Your task to perform on an android device: turn on translation in the chrome app Image 0: 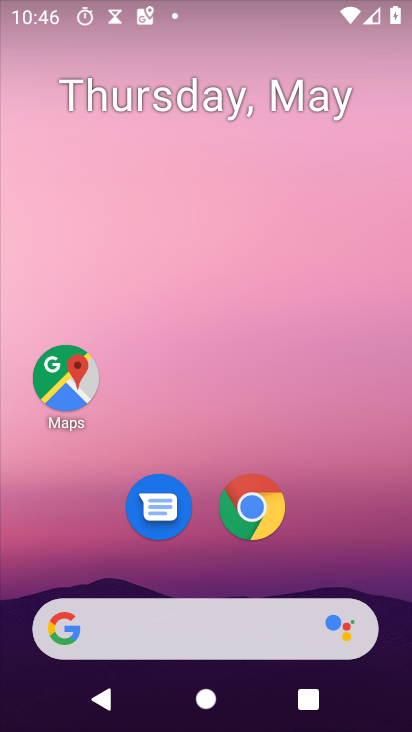
Step 0: click (254, 504)
Your task to perform on an android device: turn on translation in the chrome app Image 1: 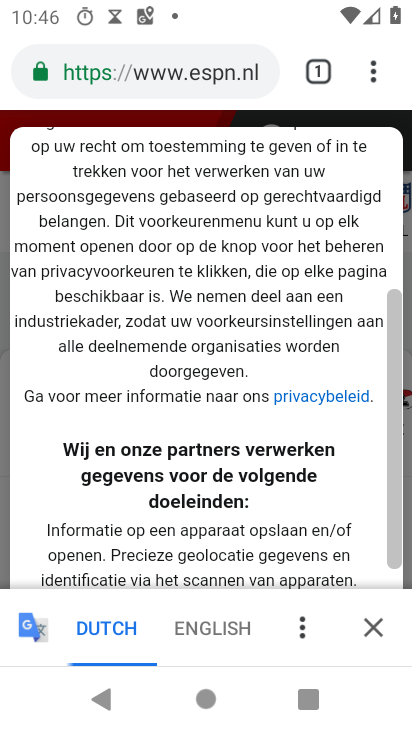
Step 1: click (370, 66)
Your task to perform on an android device: turn on translation in the chrome app Image 2: 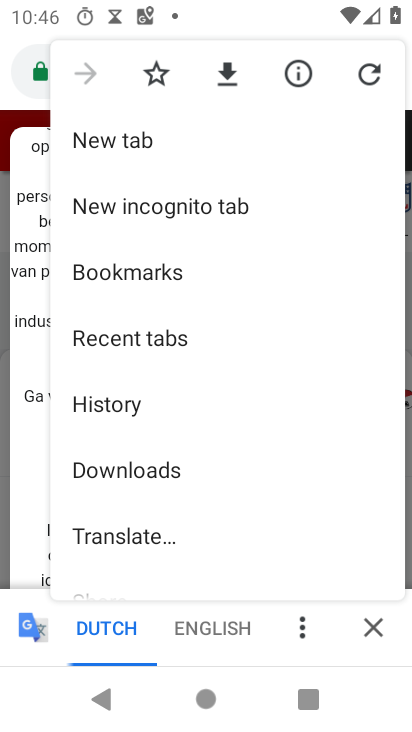
Step 2: drag from (248, 556) to (288, 168)
Your task to perform on an android device: turn on translation in the chrome app Image 3: 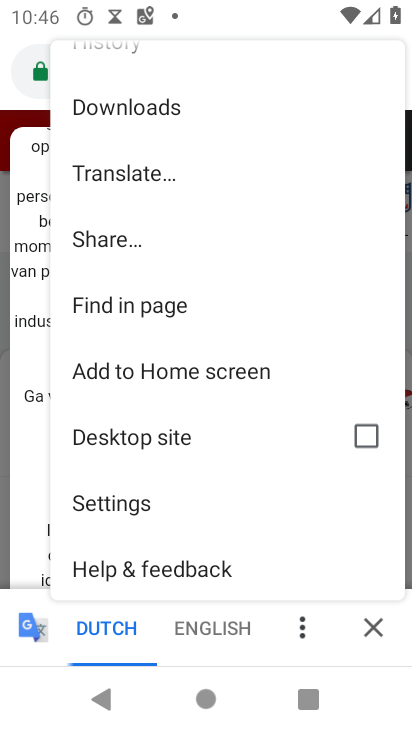
Step 3: click (148, 518)
Your task to perform on an android device: turn on translation in the chrome app Image 4: 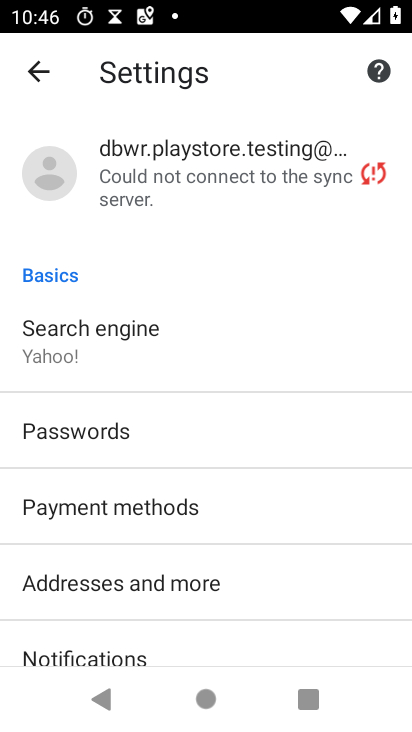
Step 4: drag from (264, 633) to (214, 211)
Your task to perform on an android device: turn on translation in the chrome app Image 5: 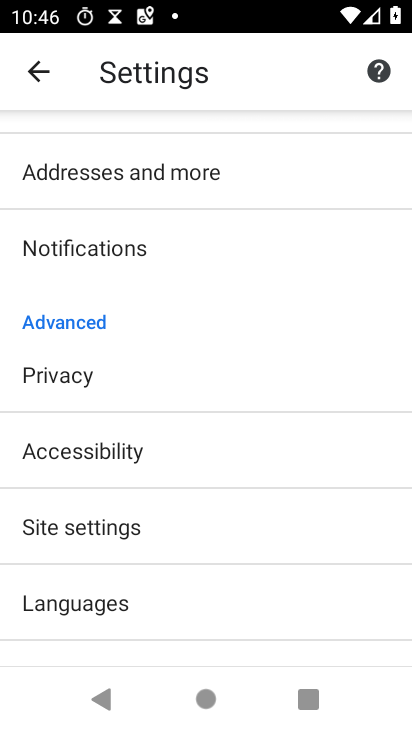
Step 5: click (103, 605)
Your task to perform on an android device: turn on translation in the chrome app Image 6: 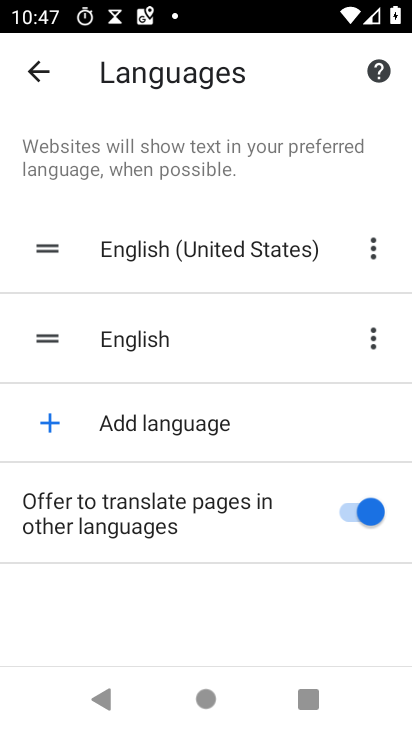
Step 6: task complete